Your task to perform on an android device: toggle location history Image 0: 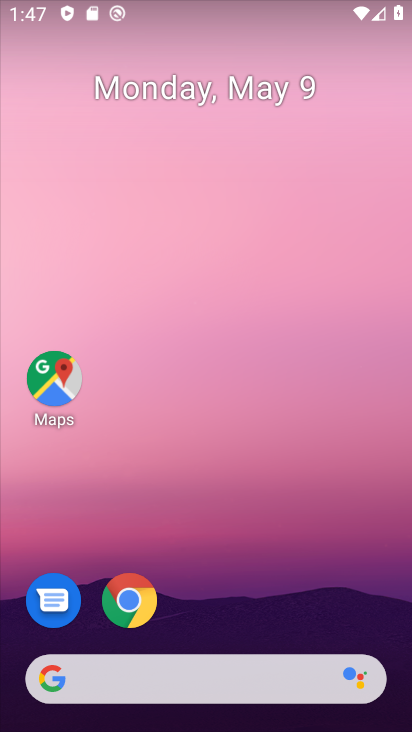
Step 0: drag from (290, 588) to (257, 3)
Your task to perform on an android device: toggle location history Image 1: 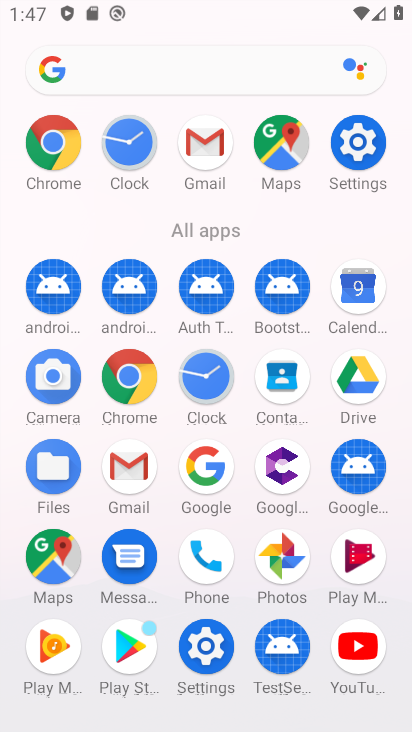
Step 1: click (348, 149)
Your task to perform on an android device: toggle location history Image 2: 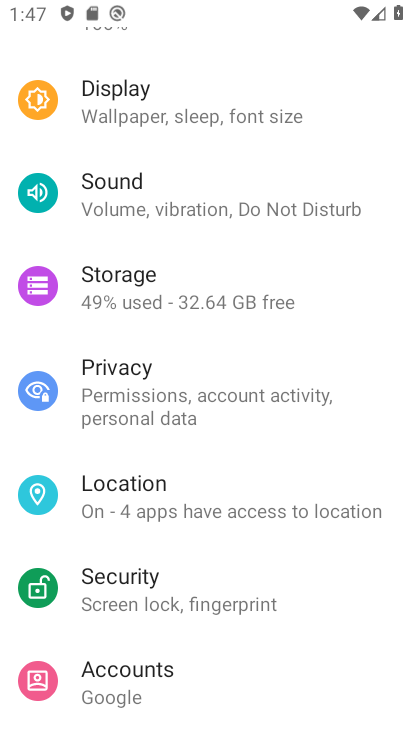
Step 2: click (168, 493)
Your task to perform on an android device: toggle location history Image 3: 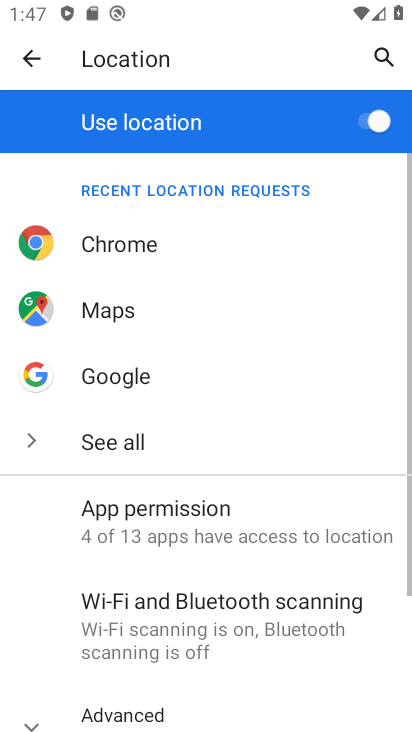
Step 3: drag from (249, 531) to (229, 85)
Your task to perform on an android device: toggle location history Image 4: 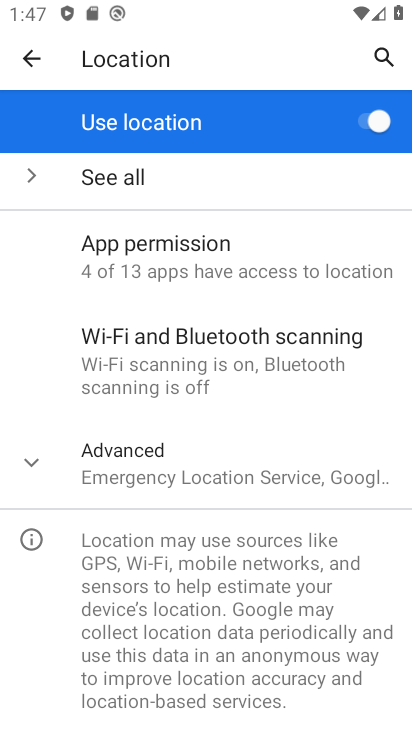
Step 4: click (193, 465)
Your task to perform on an android device: toggle location history Image 5: 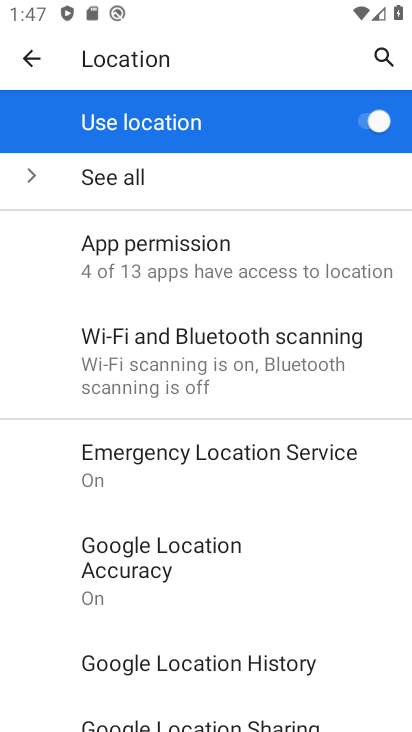
Step 5: drag from (189, 637) to (178, 434)
Your task to perform on an android device: toggle location history Image 6: 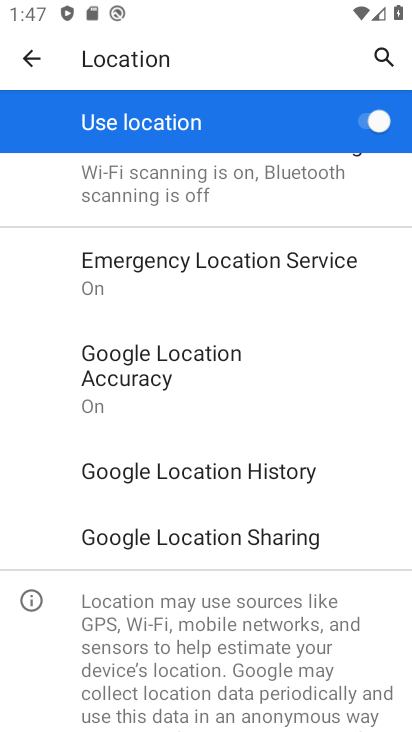
Step 6: click (198, 474)
Your task to perform on an android device: toggle location history Image 7: 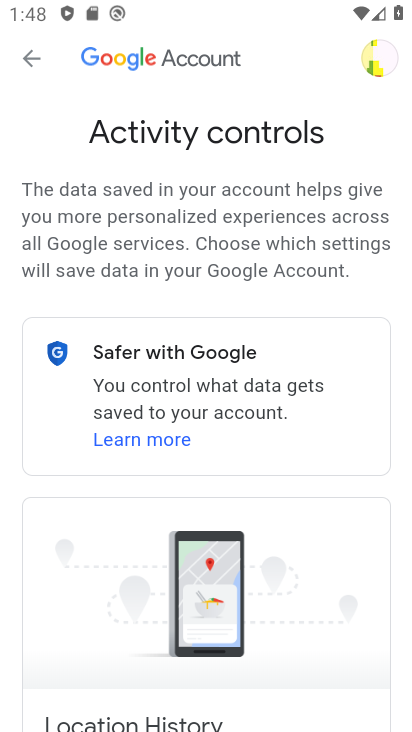
Step 7: drag from (216, 574) to (186, 252)
Your task to perform on an android device: toggle location history Image 8: 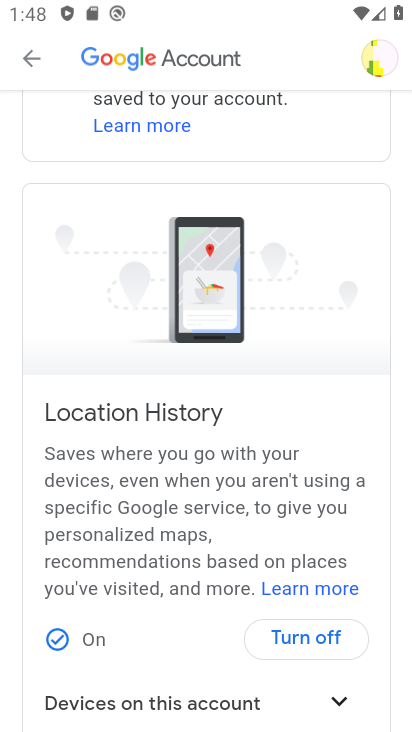
Step 8: click (285, 633)
Your task to perform on an android device: toggle location history Image 9: 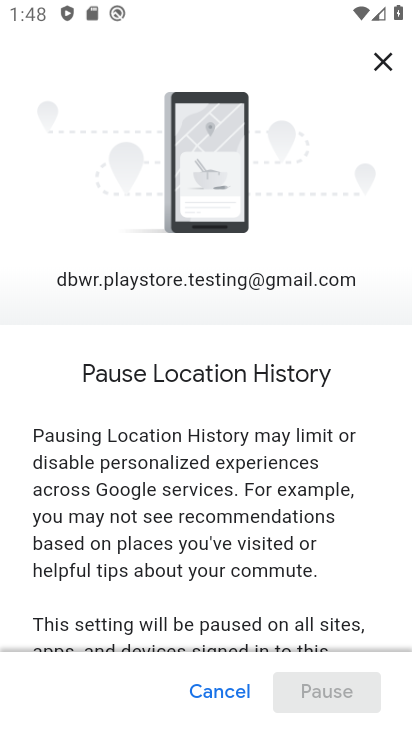
Step 9: drag from (291, 636) to (257, 470)
Your task to perform on an android device: toggle location history Image 10: 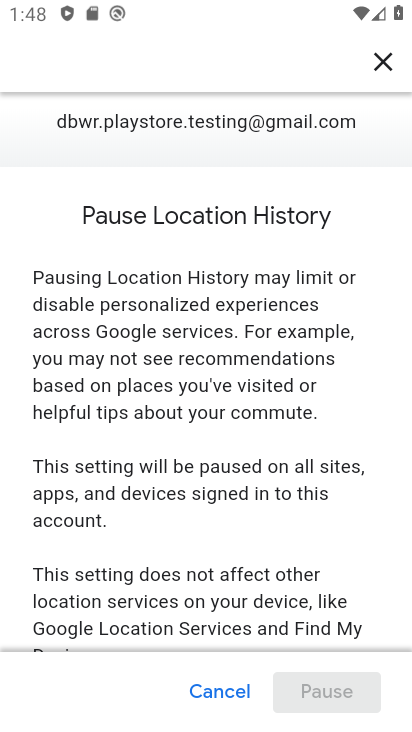
Step 10: drag from (234, 590) to (268, 259)
Your task to perform on an android device: toggle location history Image 11: 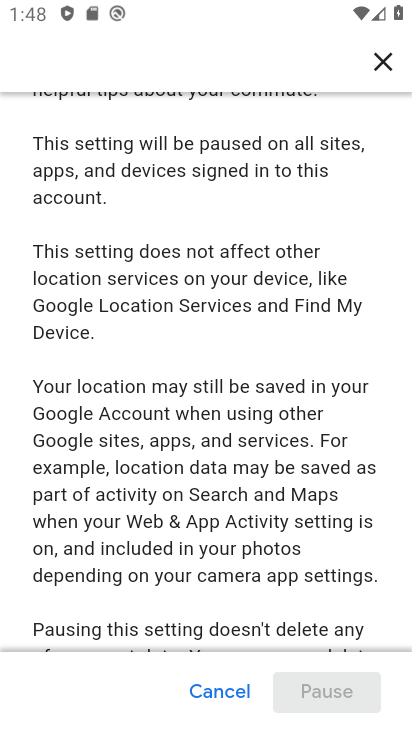
Step 11: drag from (280, 500) to (251, 206)
Your task to perform on an android device: toggle location history Image 12: 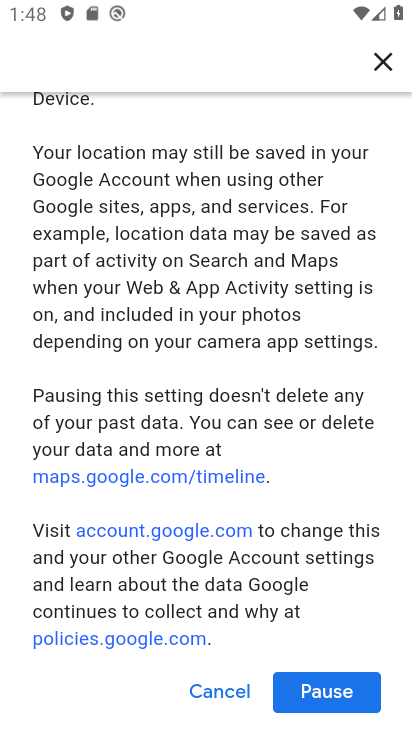
Step 12: click (294, 680)
Your task to perform on an android device: toggle location history Image 13: 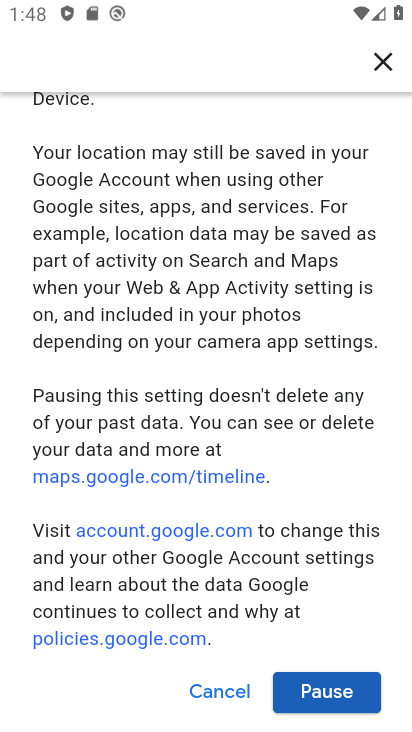
Step 13: click (303, 691)
Your task to perform on an android device: toggle location history Image 14: 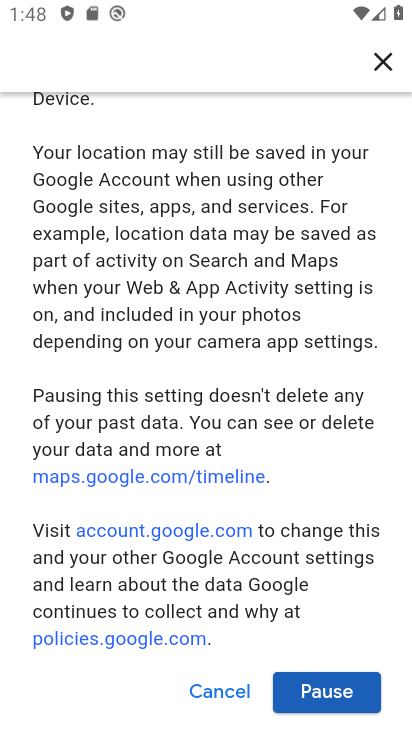
Step 14: click (303, 691)
Your task to perform on an android device: toggle location history Image 15: 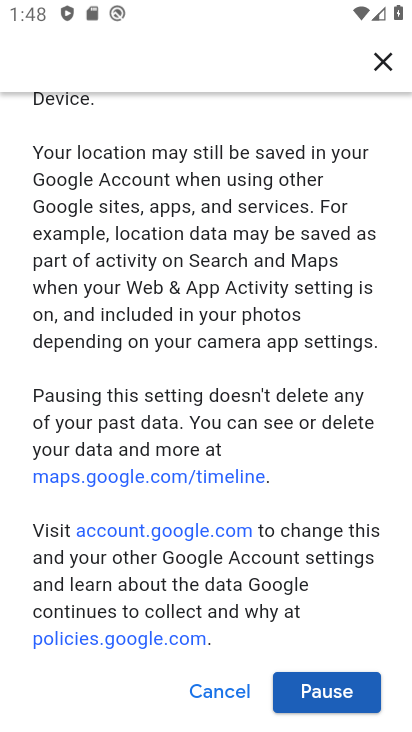
Step 15: click (298, 684)
Your task to perform on an android device: toggle location history Image 16: 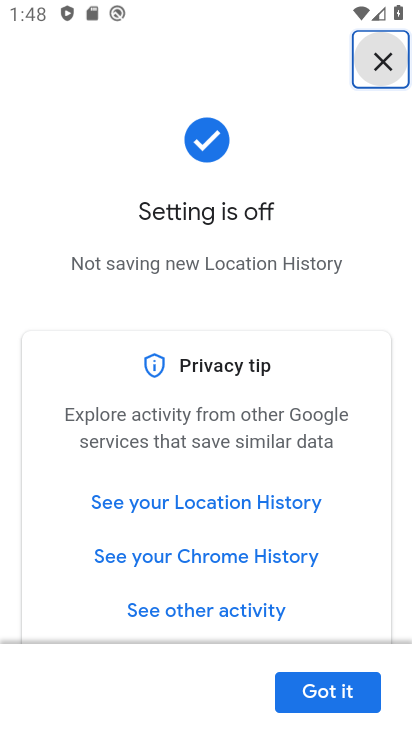
Step 16: click (292, 684)
Your task to perform on an android device: toggle location history Image 17: 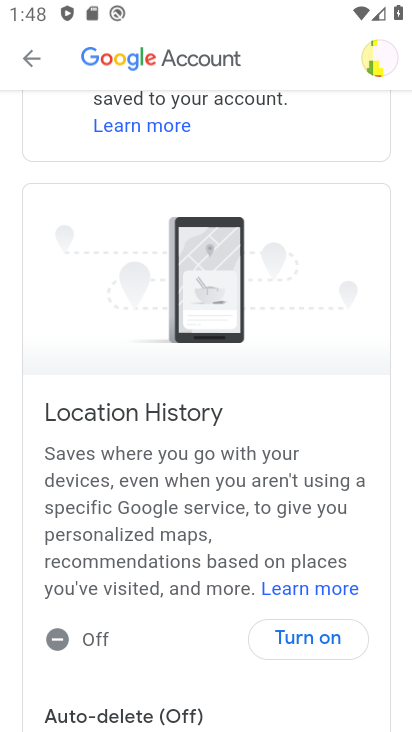
Step 17: task complete